Your task to perform on an android device: Open location settings Image 0: 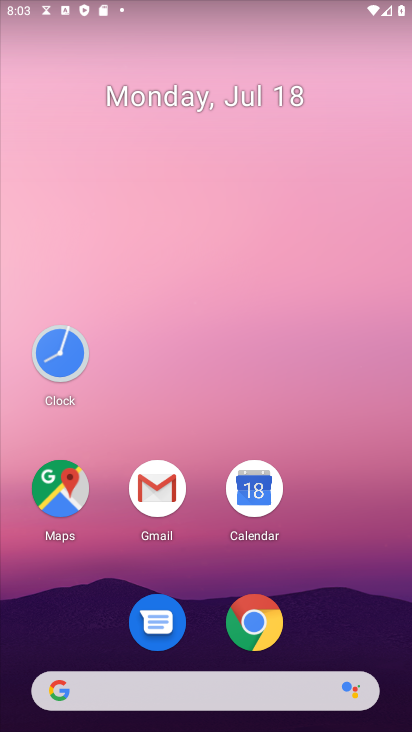
Step 0: drag from (386, 673) to (312, 70)
Your task to perform on an android device: Open location settings Image 1: 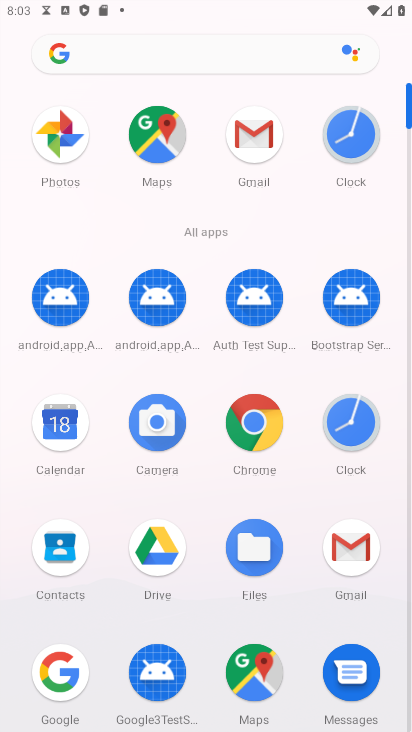
Step 1: drag from (229, 661) to (218, 210)
Your task to perform on an android device: Open location settings Image 2: 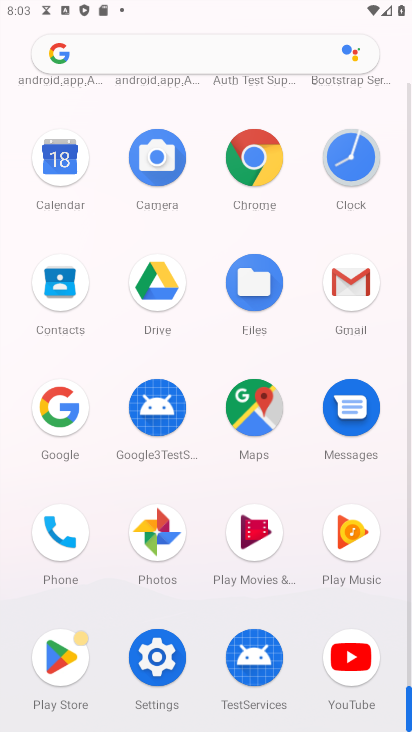
Step 2: drag from (158, 651) to (164, 385)
Your task to perform on an android device: Open location settings Image 3: 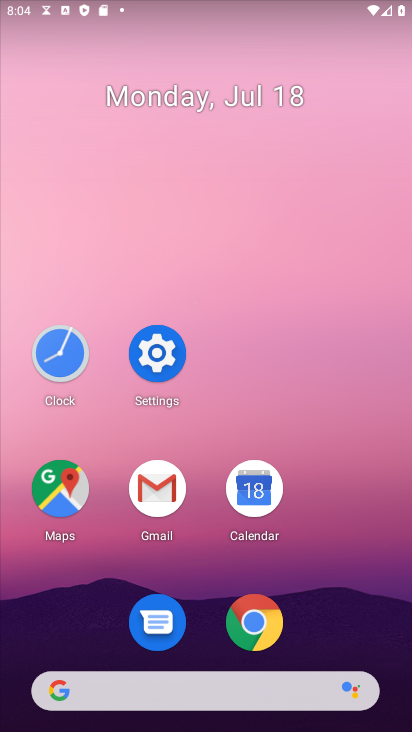
Step 3: click (167, 358)
Your task to perform on an android device: Open location settings Image 4: 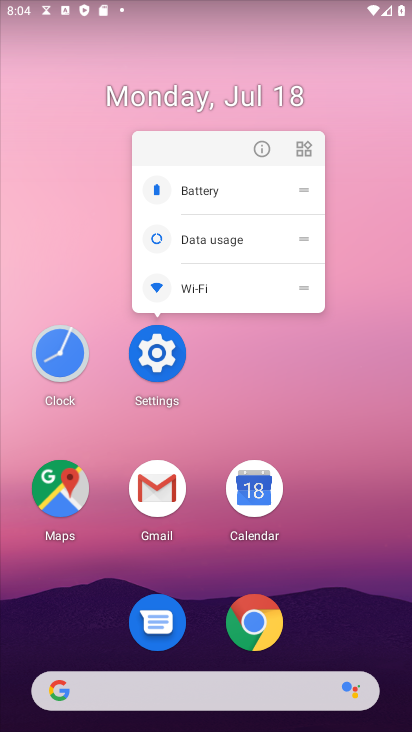
Step 4: click (165, 345)
Your task to perform on an android device: Open location settings Image 5: 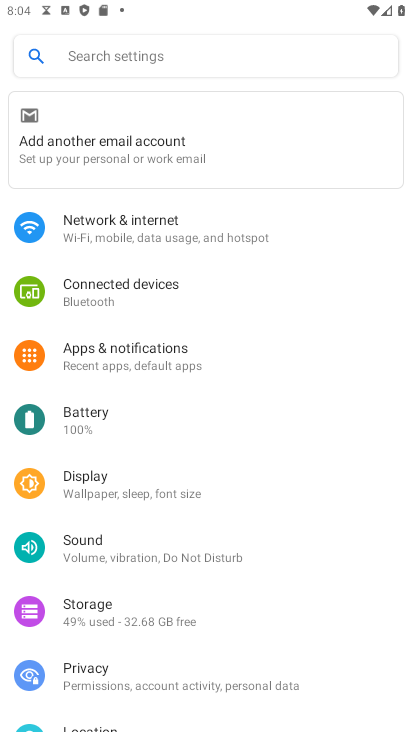
Step 5: drag from (258, 610) to (240, 298)
Your task to perform on an android device: Open location settings Image 6: 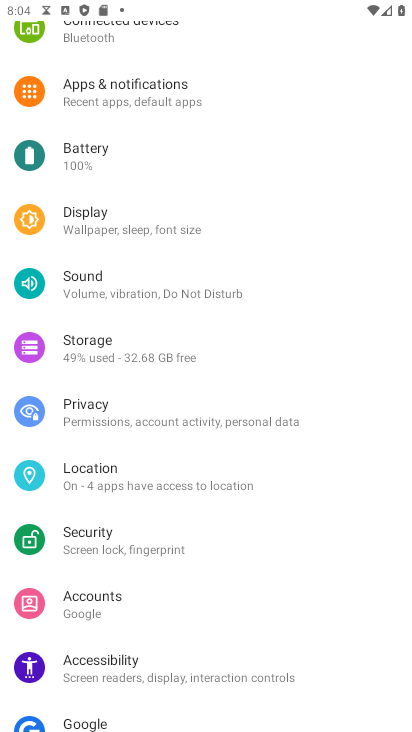
Step 6: click (90, 475)
Your task to perform on an android device: Open location settings Image 7: 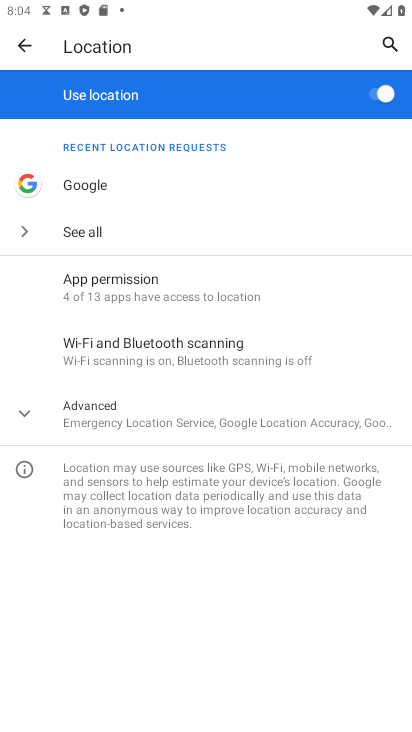
Step 7: click (25, 412)
Your task to perform on an android device: Open location settings Image 8: 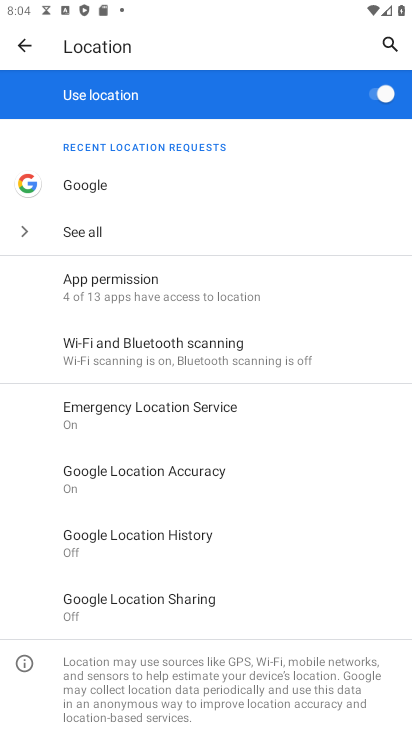
Step 8: task complete